Your task to perform on an android device: Open accessibility settings Image 0: 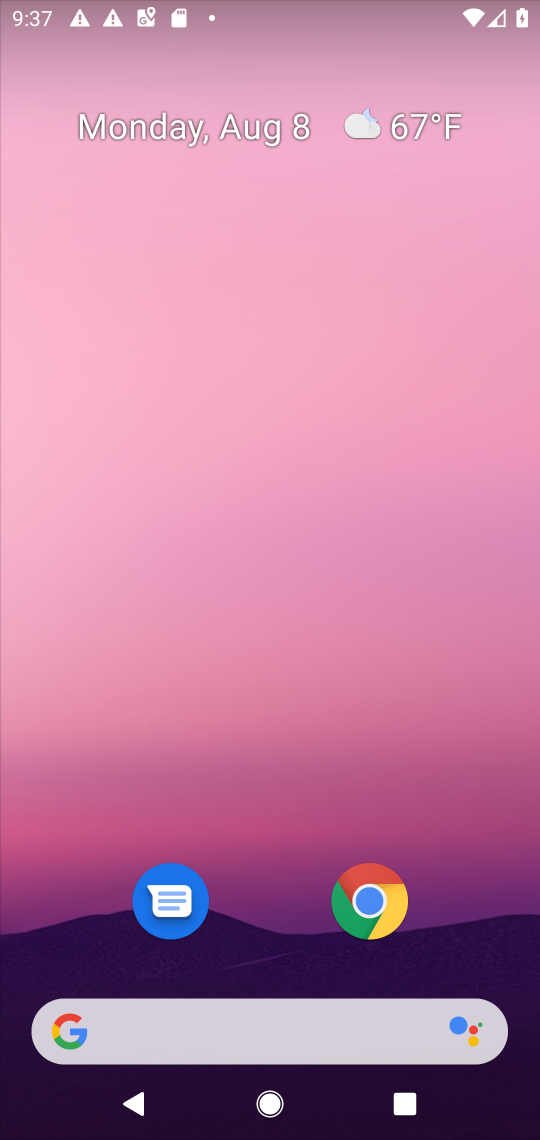
Step 0: drag from (258, 966) to (237, 186)
Your task to perform on an android device: Open accessibility settings Image 1: 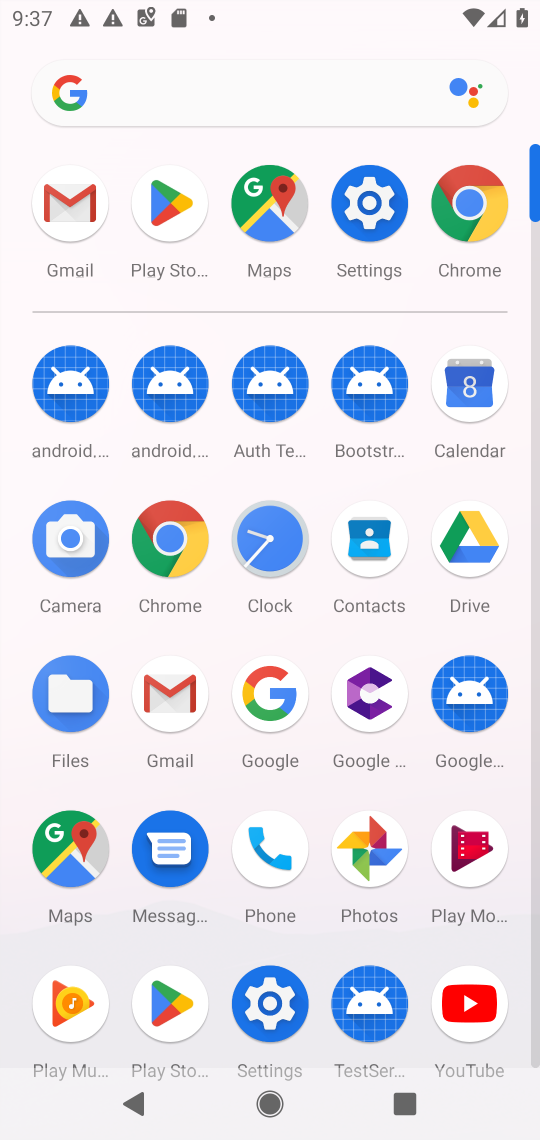
Step 1: click (254, 991)
Your task to perform on an android device: Open accessibility settings Image 2: 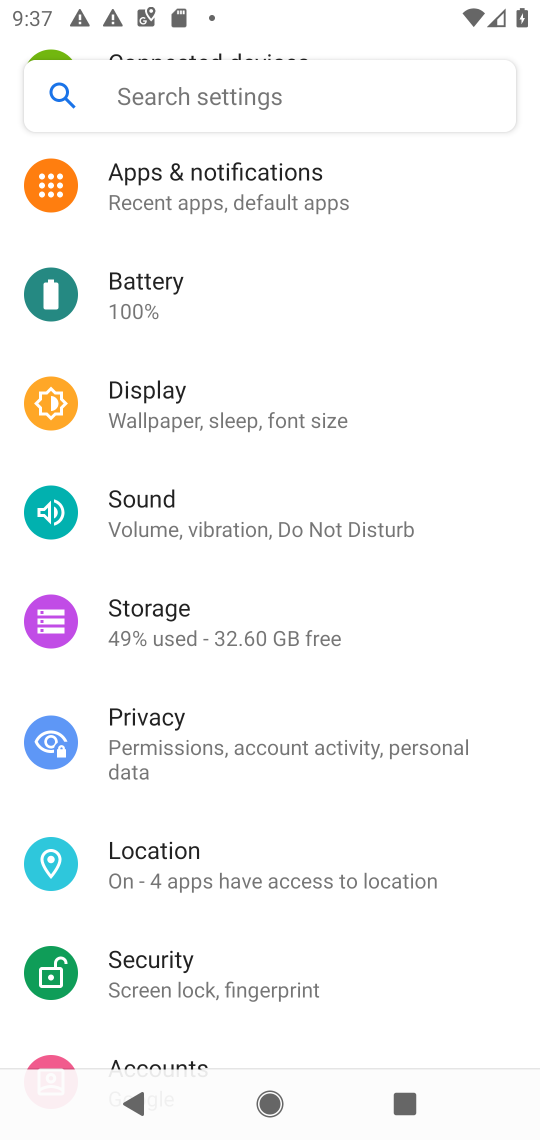
Step 2: drag from (207, 922) to (169, 582)
Your task to perform on an android device: Open accessibility settings Image 3: 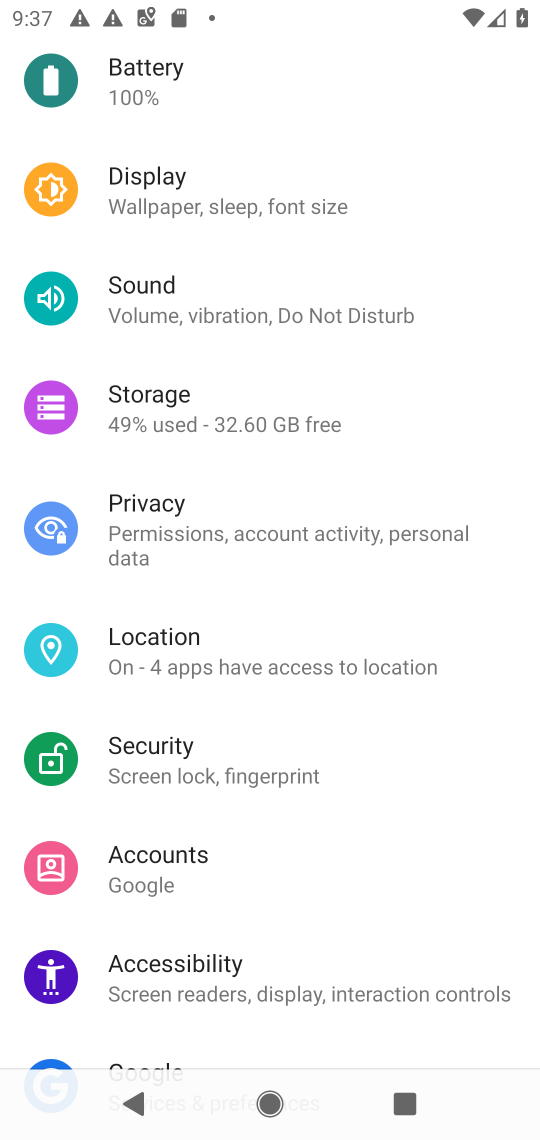
Step 3: click (176, 1004)
Your task to perform on an android device: Open accessibility settings Image 4: 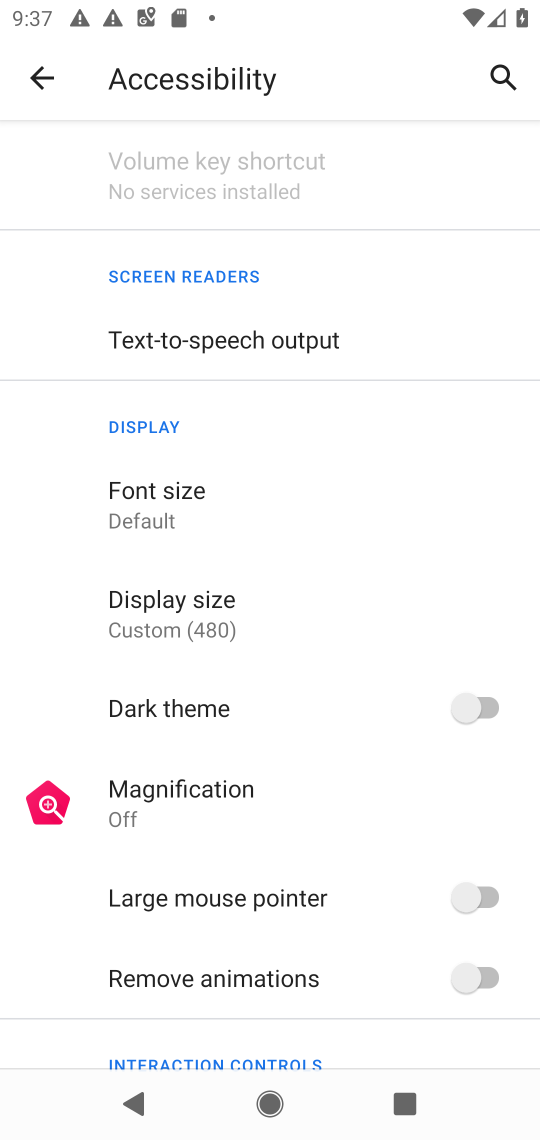
Step 4: task complete